Your task to perform on an android device: turn on priority inbox in the gmail app Image 0: 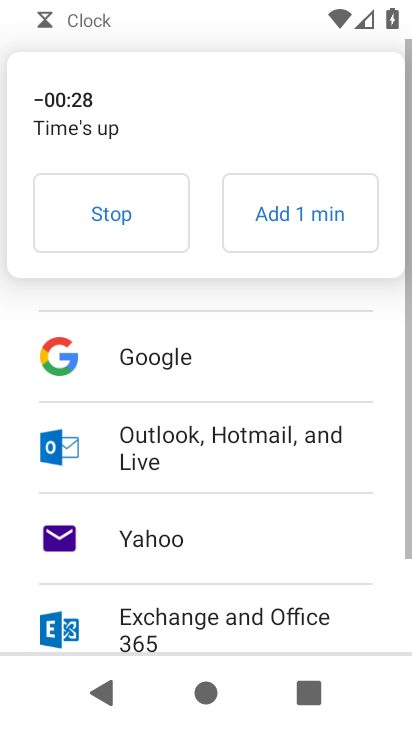
Step 0: click (158, 216)
Your task to perform on an android device: turn on priority inbox in the gmail app Image 1: 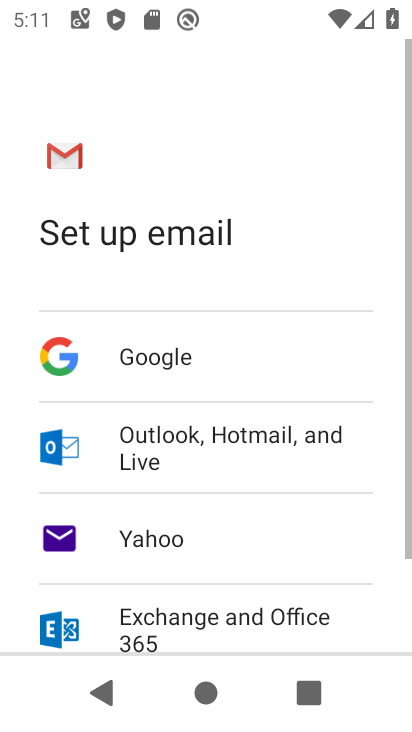
Step 1: drag from (213, 584) to (312, 113)
Your task to perform on an android device: turn on priority inbox in the gmail app Image 2: 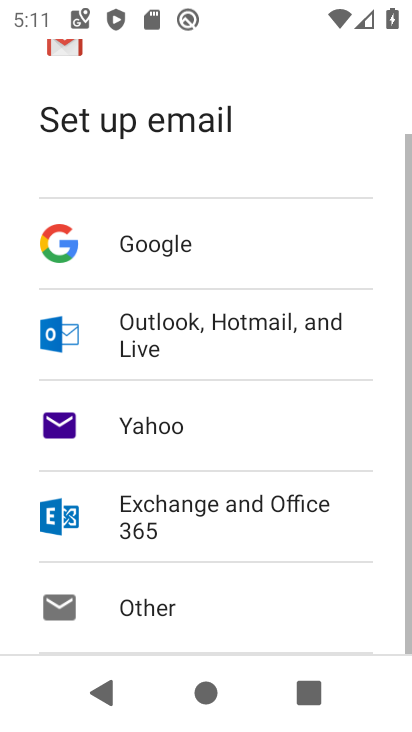
Step 2: drag from (260, 219) to (369, 280)
Your task to perform on an android device: turn on priority inbox in the gmail app Image 3: 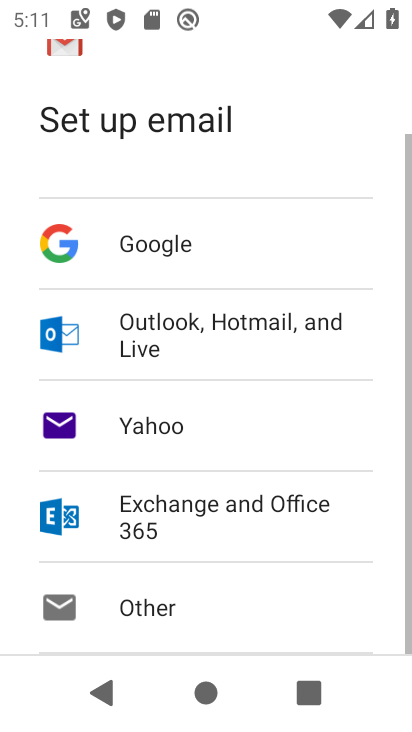
Step 3: press home button
Your task to perform on an android device: turn on priority inbox in the gmail app Image 4: 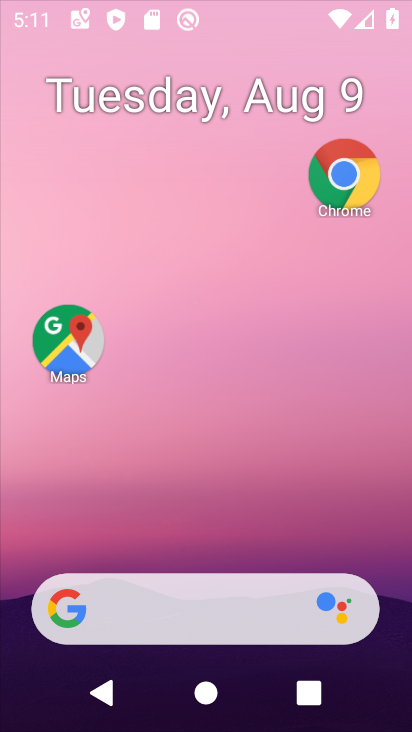
Step 4: drag from (224, 582) to (285, 68)
Your task to perform on an android device: turn on priority inbox in the gmail app Image 5: 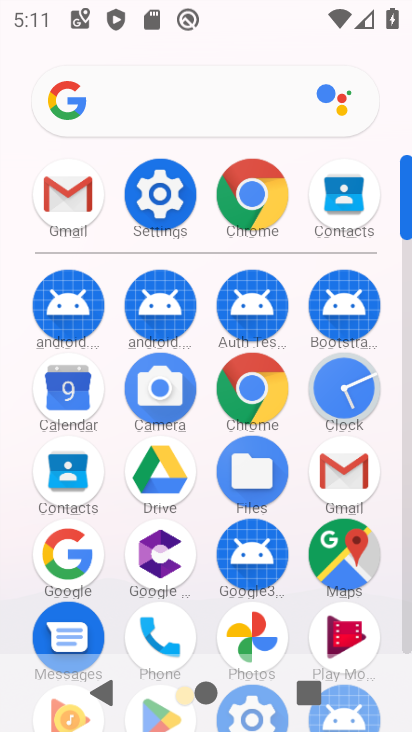
Step 5: click (49, 201)
Your task to perform on an android device: turn on priority inbox in the gmail app Image 6: 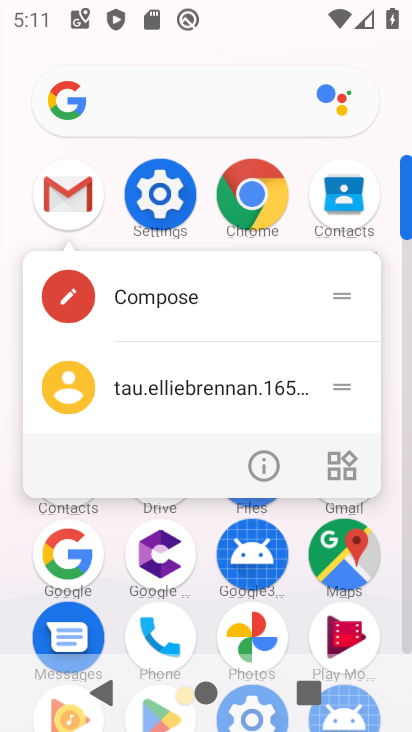
Step 6: click (259, 468)
Your task to perform on an android device: turn on priority inbox in the gmail app Image 7: 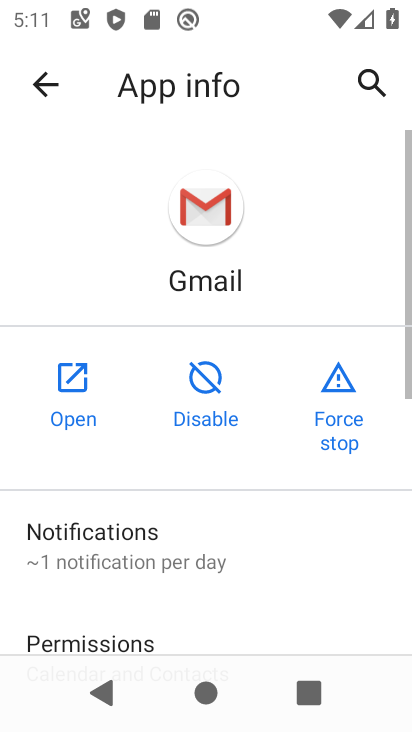
Step 7: click (67, 369)
Your task to perform on an android device: turn on priority inbox in the gmail app Image 8: 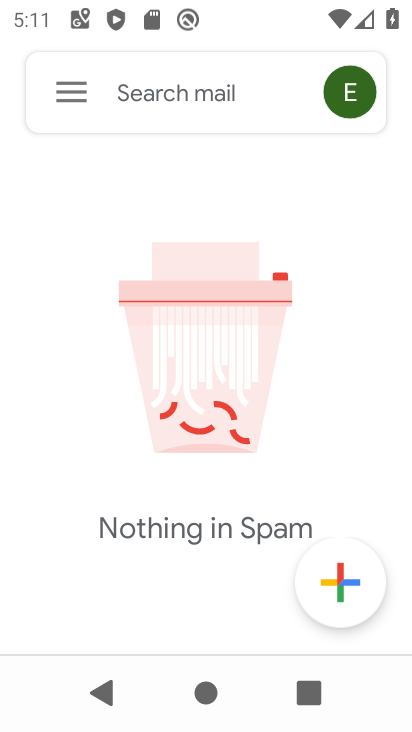
Step 8: click (53, 88)
Your task to perform on an android device: turn on priority inbox in the gmail app Image 9: 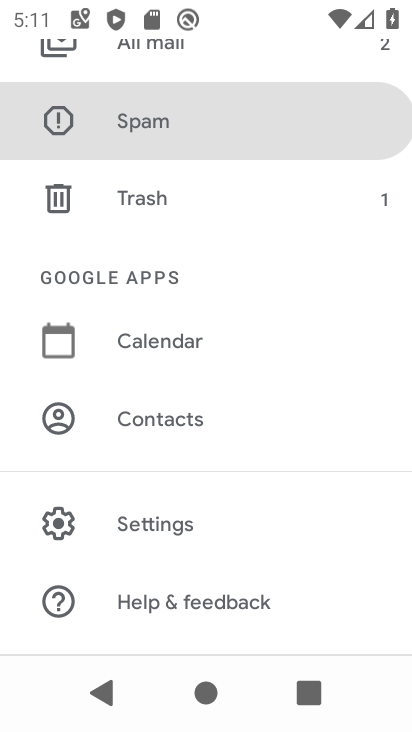
Step 9: drag from (210, 626) to (215, 323)
Your task to perform on an android device: turn on priority inbox in the gmail app Image 10: 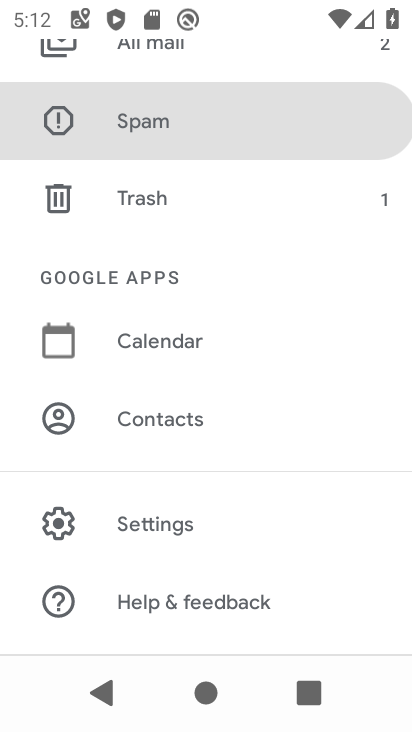
Step 10: click (185, 518)
Your task to perform on an android device: turn on priority inbox in the gmail app Image 11: 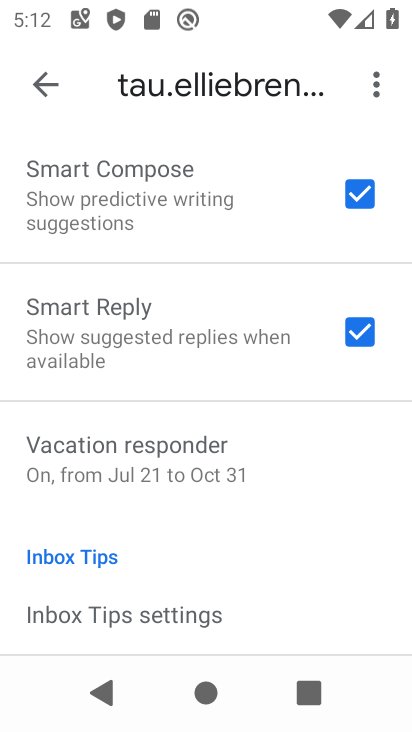
Step 11: drag from (169, 139) to (224, 725)
Your task to perform on an android device: turn on priority inbox in the gmail app Image 12: 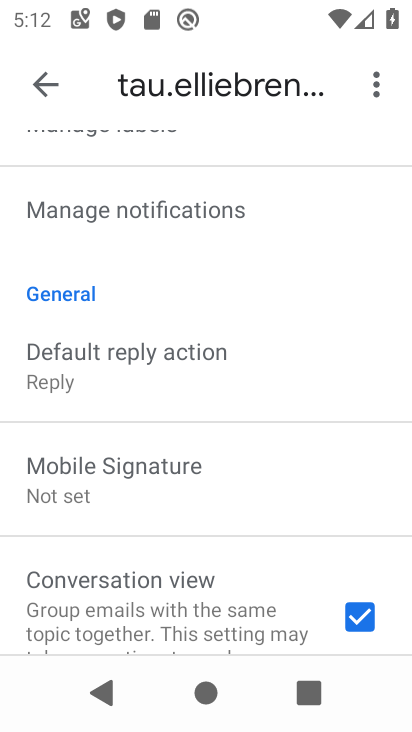
Step 12: drag from (188, 201) to (255, 666)
Your task to perform on an android device: turn on priority inbox in the gmail app Image 13: 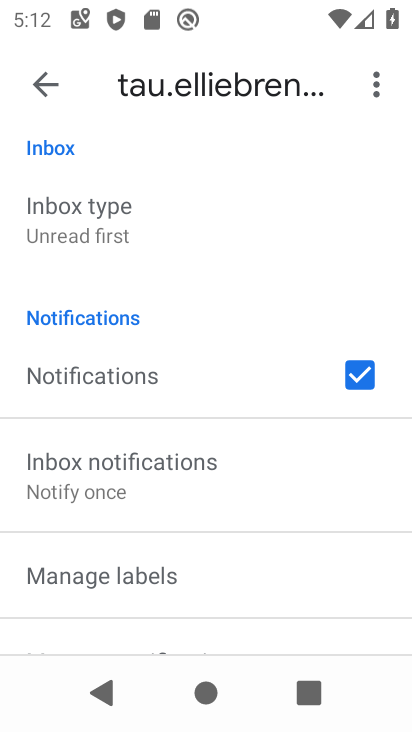
Step 13: drag from (266, 209) to (167, 727)
Your task to perform on an android device: turn on priority inbox in the gmail app Image 14: 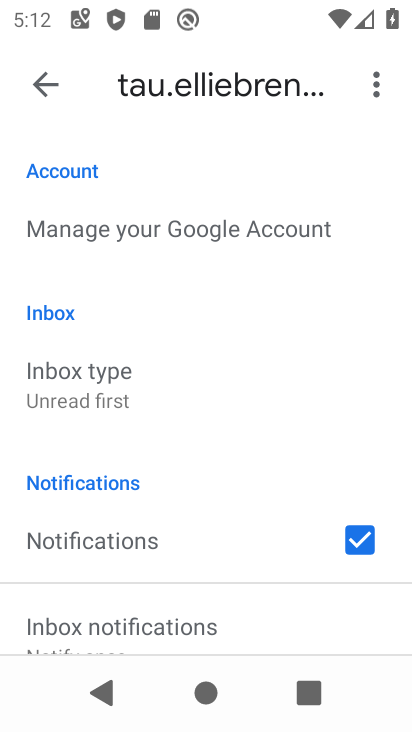
Step 14: click (104, 379)
Your task to perform on an android device: turn on priority inbox in the gmail app Image 15: 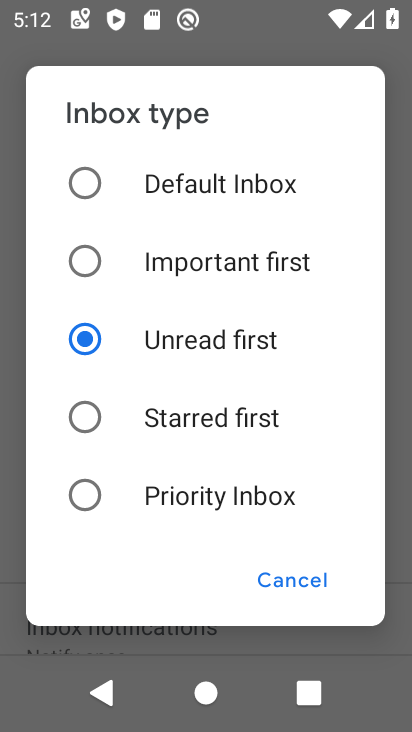
Step 15: click (130, 494)
Your task to perform on an android device: turn on priority inbox in the gmail app Image 16: 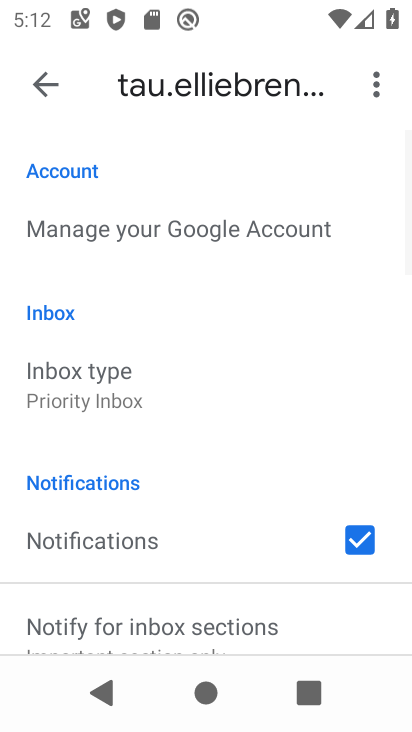
Step 16: task complete